Your task to perform on an android device: Toggle the flashlight Image 0: 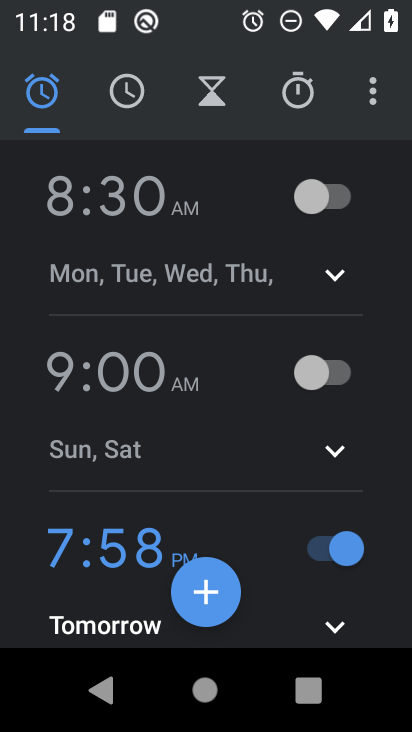
Step 0: press home button
Your task to perform on an android device: Toggle the flashlight Image 1: 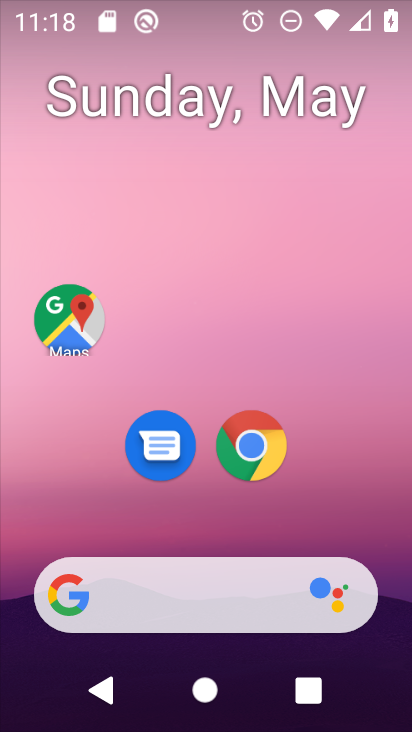
Step 1: task complete